Your task to perform on an android device: delete a single message in the gmail app Image 0: 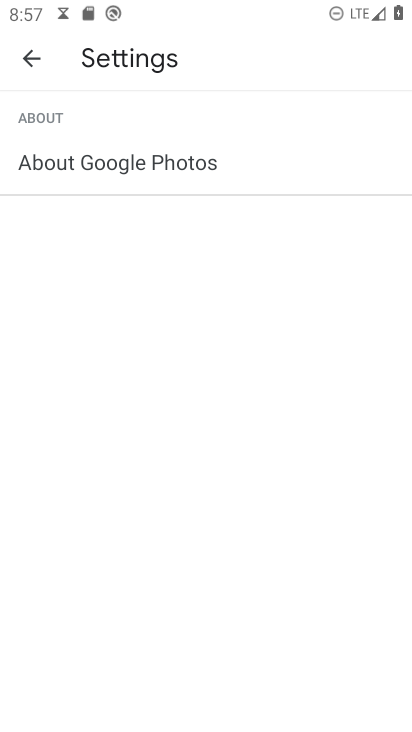
Step 0: press home button
Your task to perform on an android device: delete a single message in the gmail app Image 1: 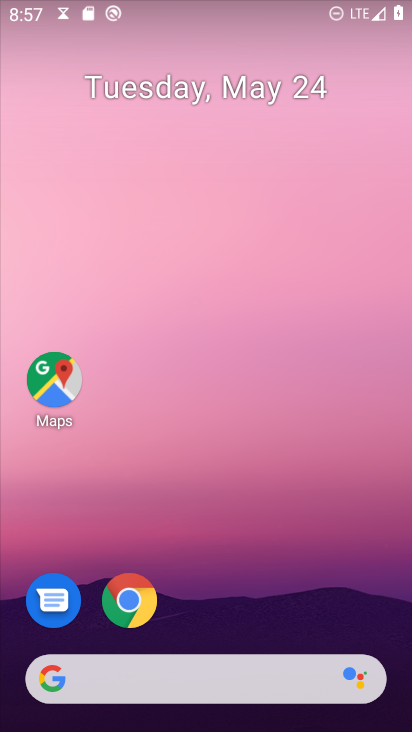
Step 1: drag from (211, 654) to (288, 46)
Your task to perform on an android device: delete a single message in the gmail app Image 2: 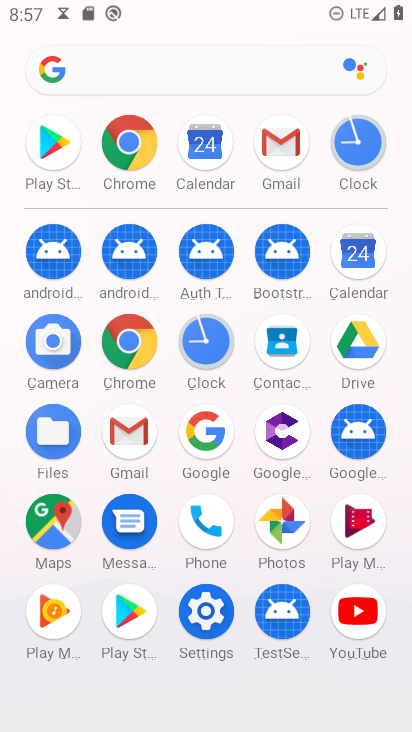
Step 2: click (277, 141)
Your task to perform on an android device: delete a single message in the gmail app Image 3: 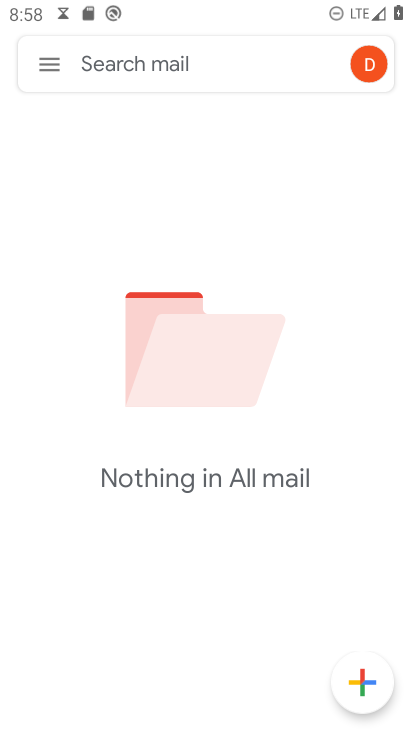
Step 3: task complete